Your task to perform on an android device: change the clock style Image 0: 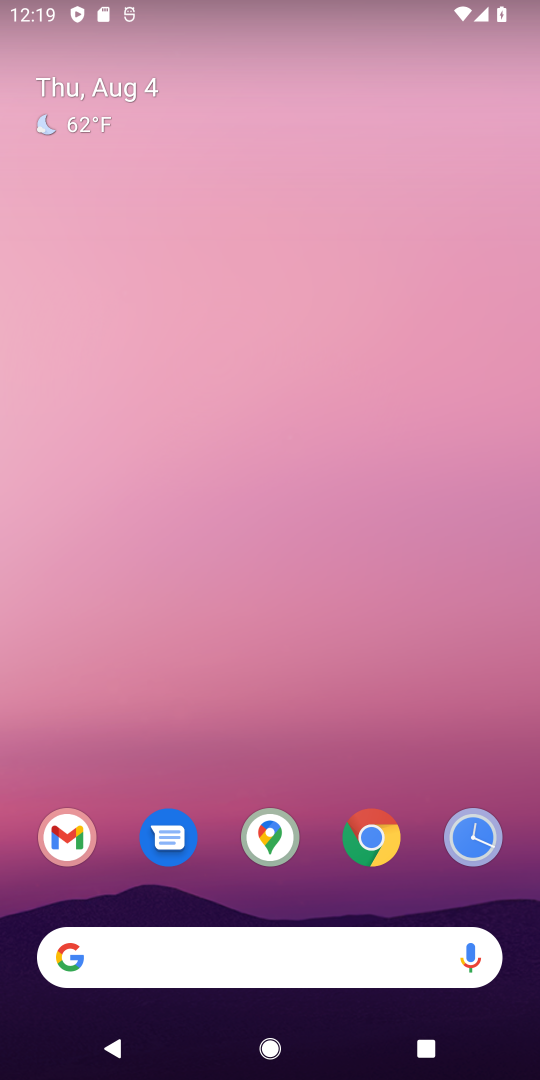
Step 0: click (481, 852)
Your task to perform on an android device: change the clock style Image 1: 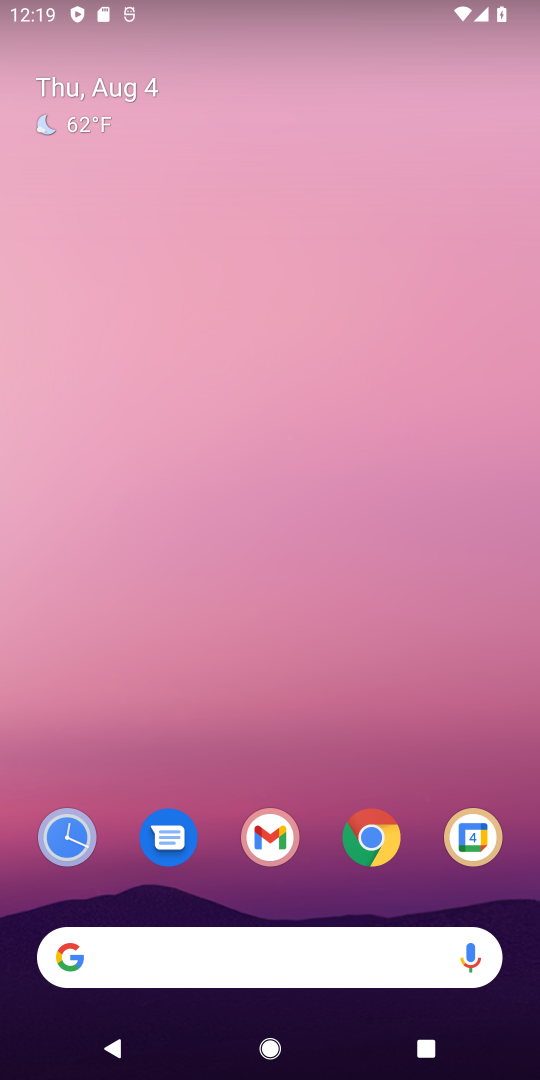
Step 1: click (55, 838)
Your task to perform on an android device: change the clock style Image 2: 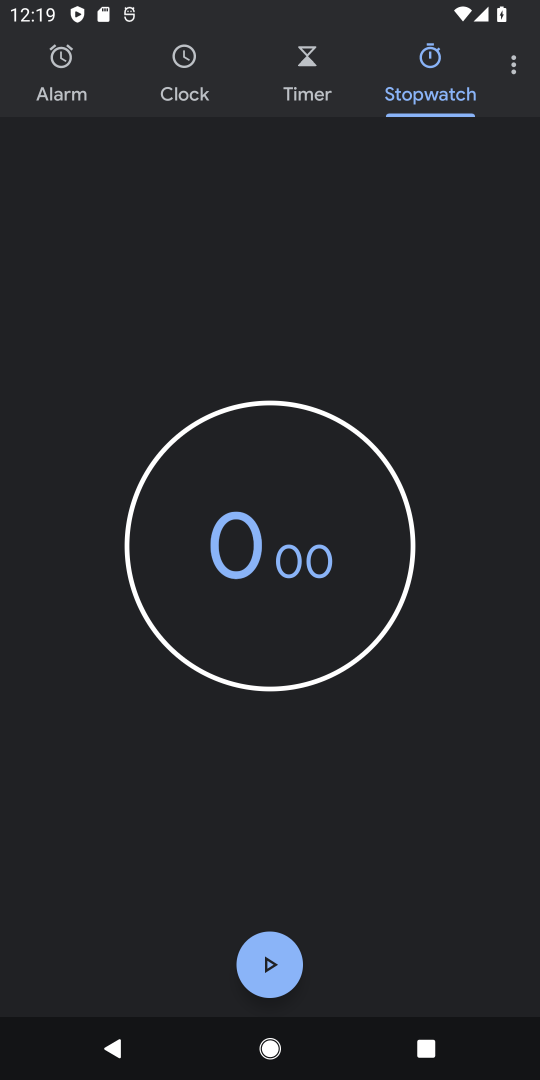
Step 2: click (519, 62)
Your task to perform on an android device: change the clock style Image 3: 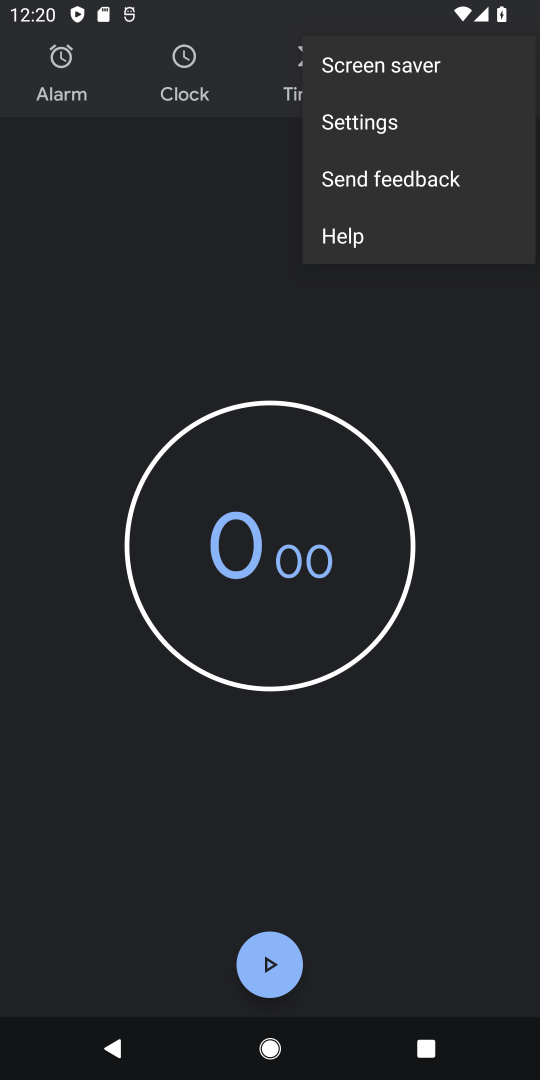
Step 3: click (369, 134)
Your task to perform on an android device: change the clock style Image 4: 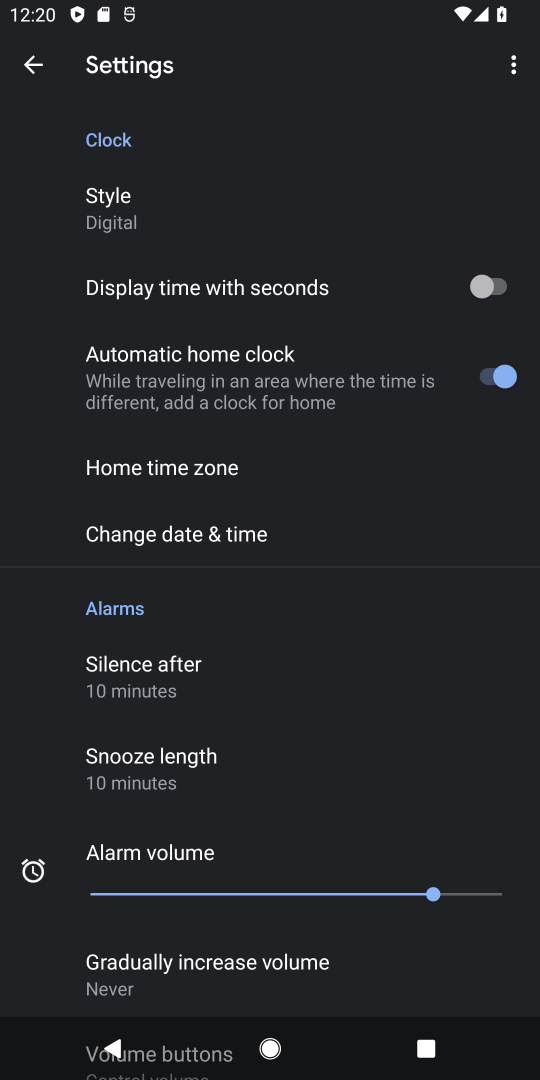
Step 4: click (117, 216)
Your task to perform on an android device: change the clock style Image 5: 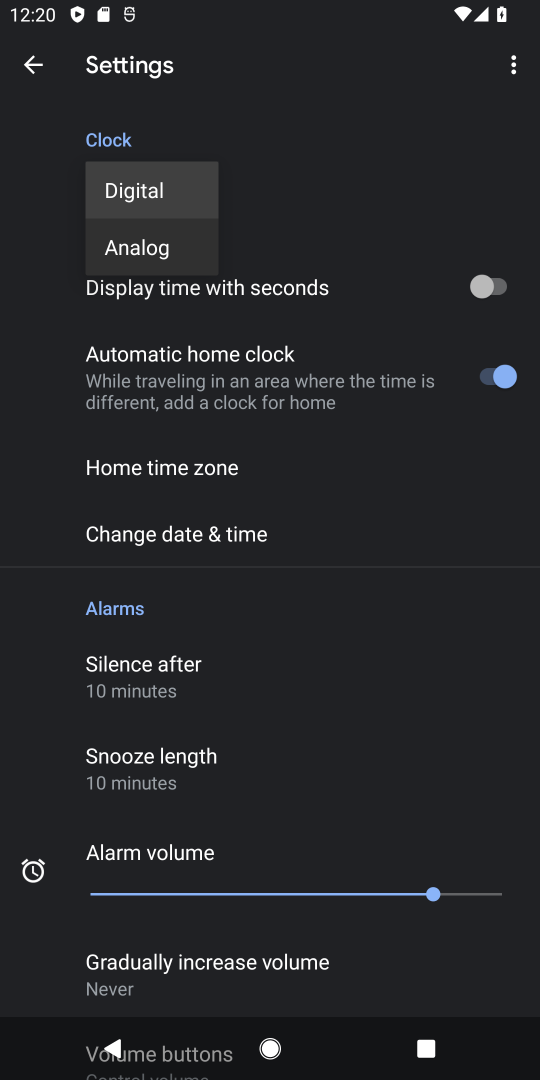
Step 5: click (134, 230)
Your task to perform on an android device: change the clock style Image 6: 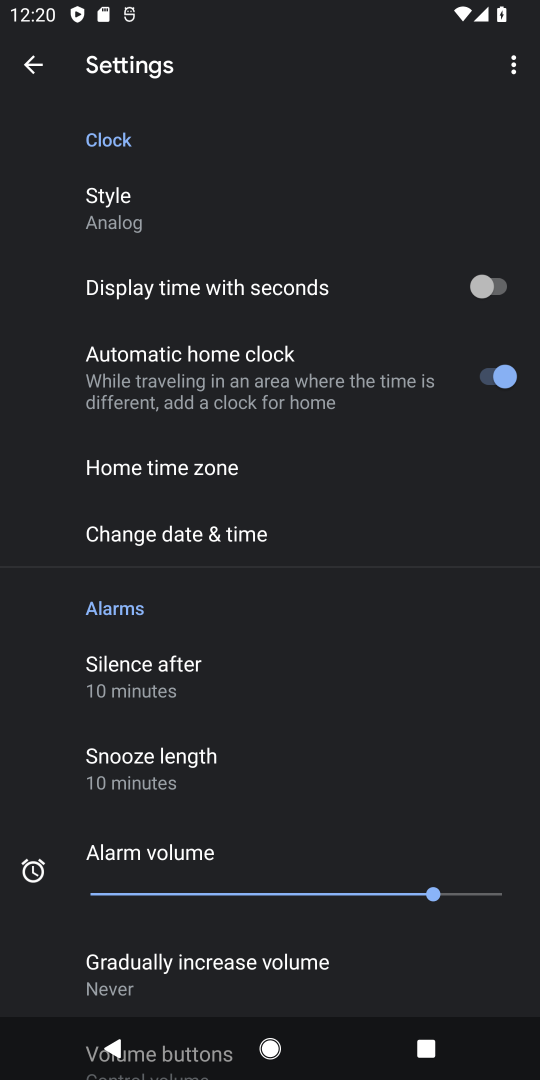
Step 6: task complete